Your task to perform on an android device: delete browsing data in the chrome app Image 0: 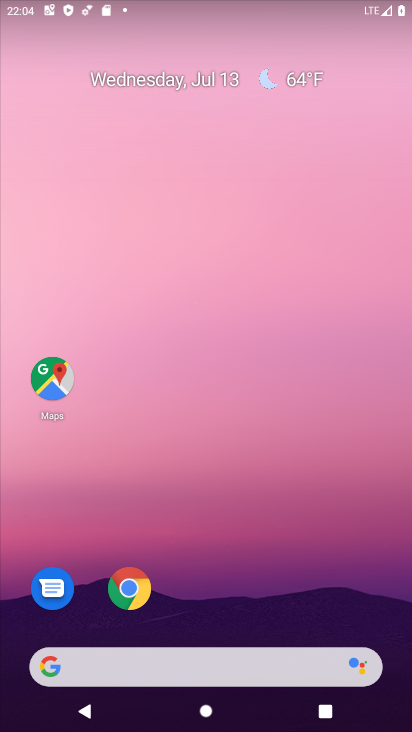
Step 0: click (132, 575)
Your task to perform on an android device: delete browsing data in the chrome app Image 1: 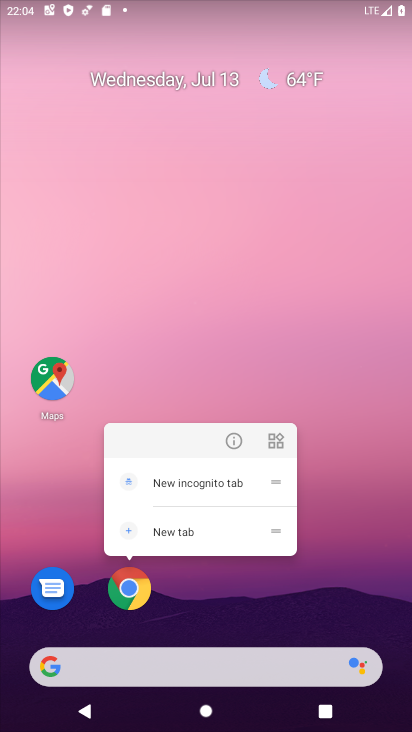
Step 1: click (191, 324)
Your task to perform on an android device: delete browsing data in the chrome app Image 2: 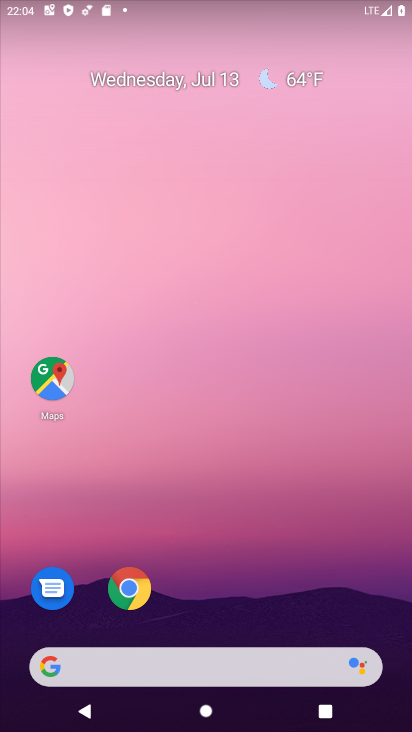
Step 2: click (138, 590)
Your task to perform on an android device: delete browsing data in the chrome app Image 3: 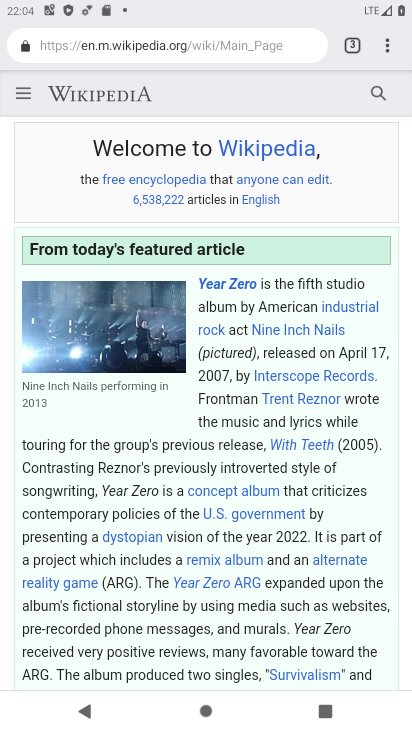
Step 3: click (395, 41)
Your task to perform on an android device: delete browsing data in the chrome app Image 4: 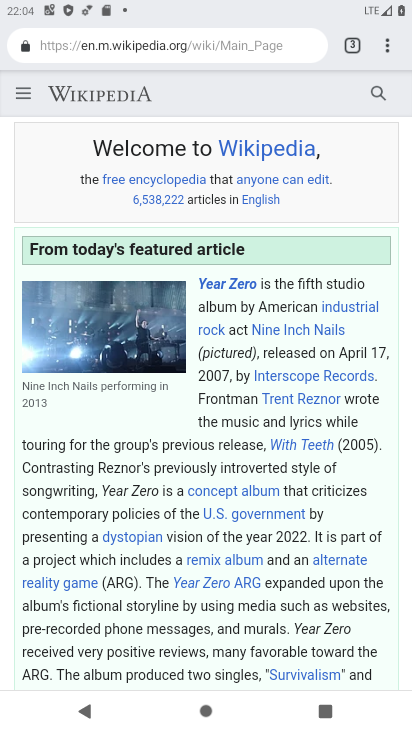
Step 4: drag from (387, 43) to (229, 262)
Your task to perform on an android device: delete browsing data in the chrome app Image 5: 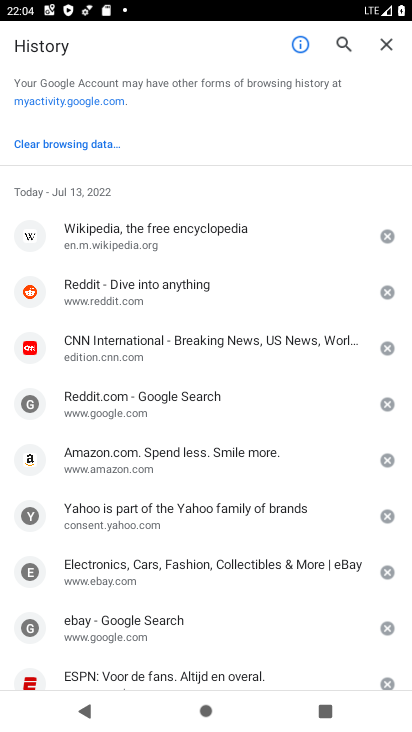
Step 5: click (32, 139)
Your task to perform on an android device: delete browsing data in the chrome app Image 6: 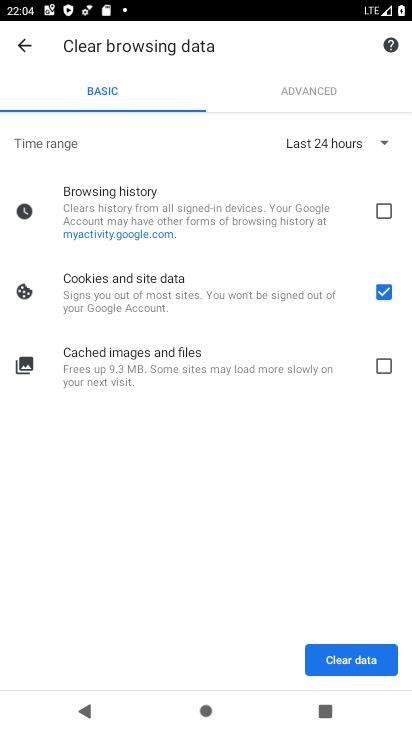
Step 6: click (377, 210)
Your task to perform on an android device: delete browsing data in the chrome app Image 7: 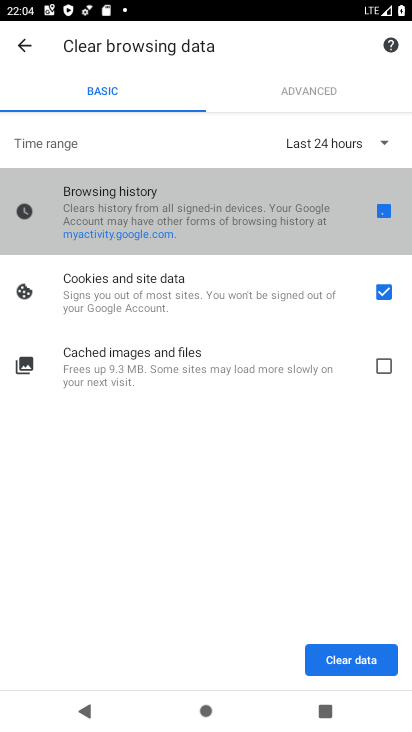
Step 7: click (392, 363)
Your task to perform on an android device: delete browsing data in the chrome app Image 8: 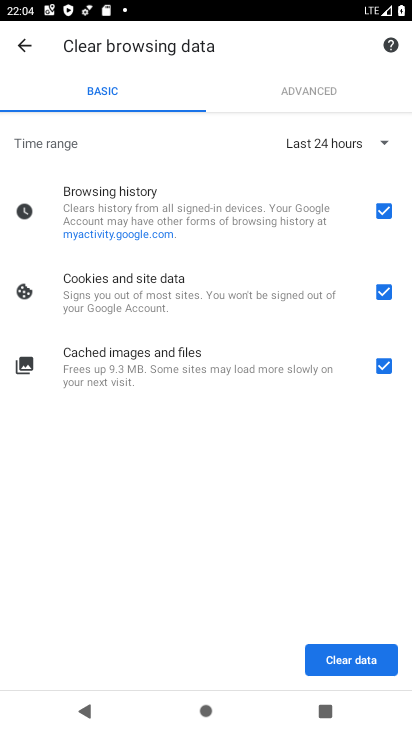
Step 8: click (345, 651)
Your task to perform on an android device: delete browsing data in the chrome app Image 9: 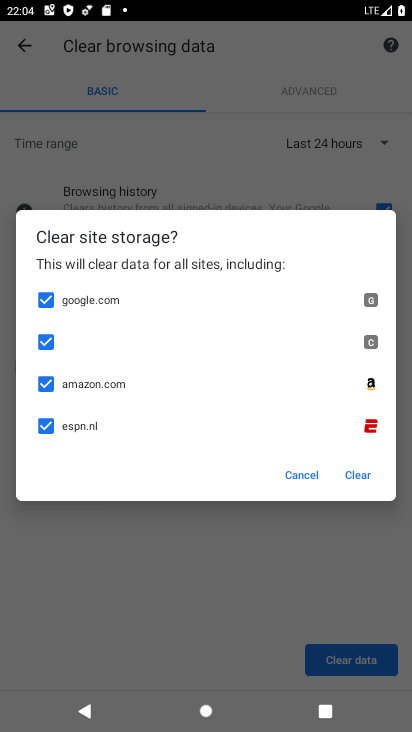
Step 9: click (366, 469)
Your task to perform on an android device: delete browsing data in the chrome app Image 10: 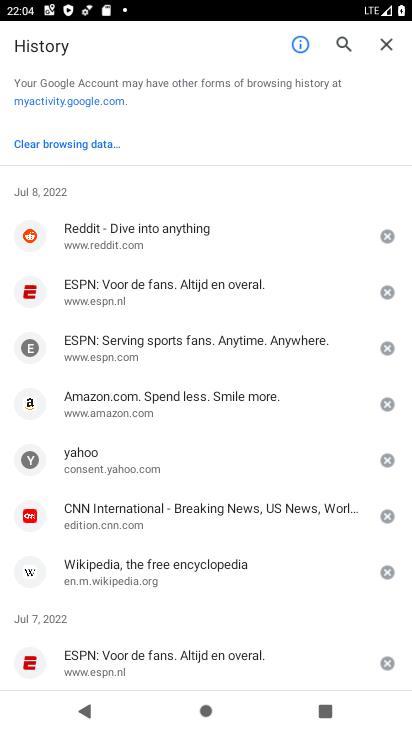
Step 10: task complete